Your task to perform on an android device: turn pop-ups off in chrome Image 0: 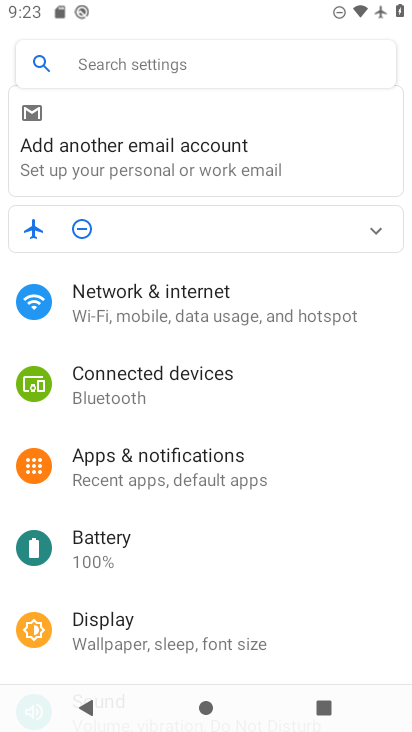
Step 0: press home button
Your task to perform on an android device: turn pop-ups off in chrome Image 1: 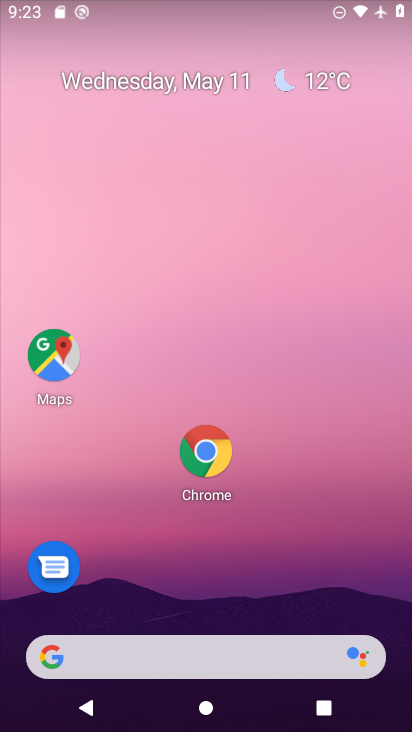
Step 1: click (200, 456)
Your task to perform on an android device: turn pop-ups off in chrome Image 2: 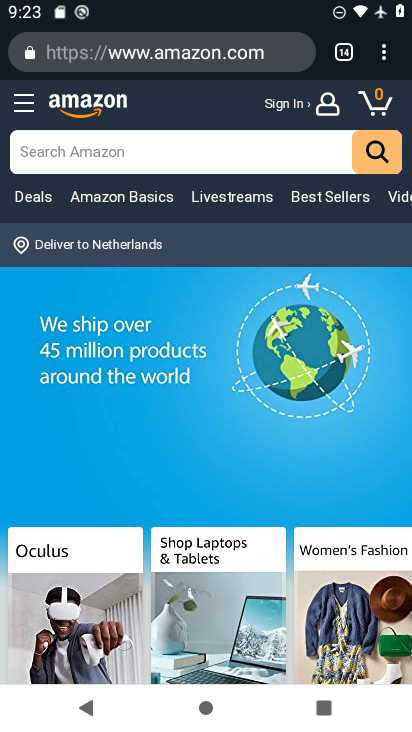
Step 2: drag from (381, 57) to (269, 607)
Your task to perform on an android device: turn pop-ups off in chrome Image 3: 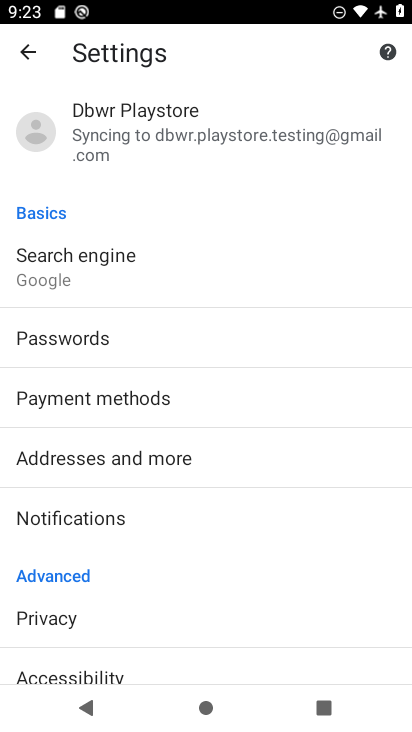
Step 3: drag from (135, 646) to (267, 272)
Your task to perform on an android device: turn pop-ups off in chrome Image 4: 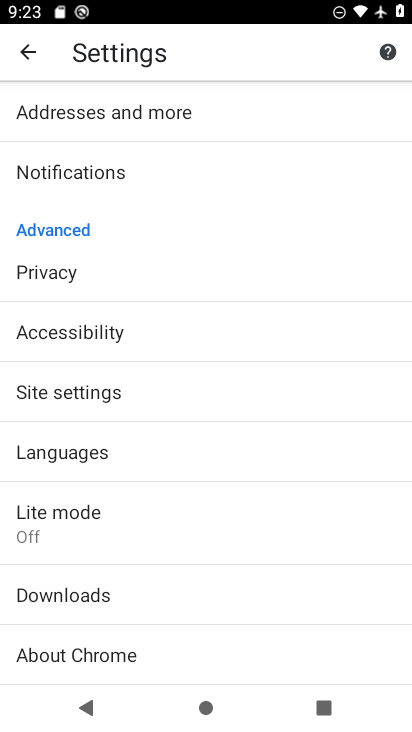
Step 4: click (81, 395)
Your task to perform on an android device: turn pop-ups off in chrome Image 5: 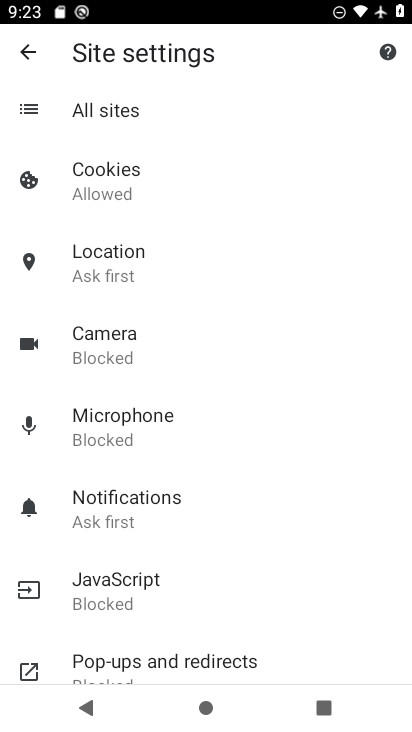
Step 5: click (168, 661)
Your task to perform on an android device: turn pop-ups off in chrome Image 6: 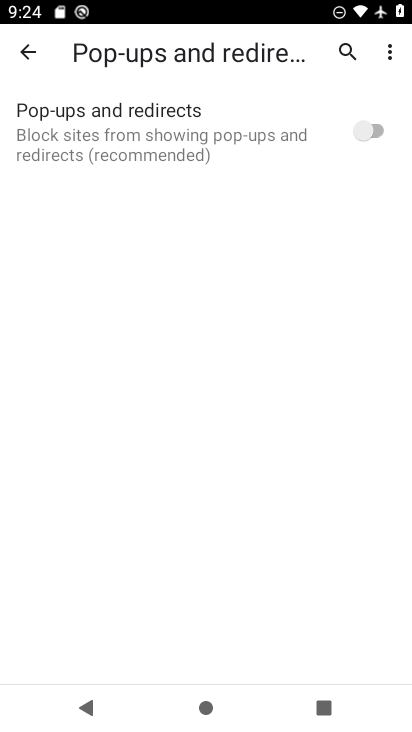
Step 6: task complete